Your task to perform on an android device: Go to location settings Image 0: 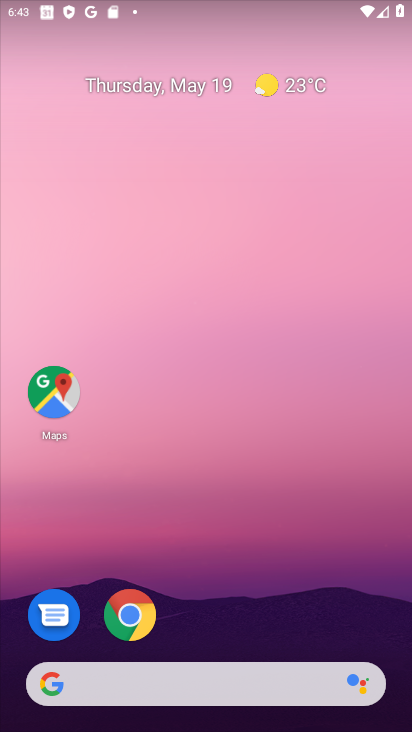
Step 0: drag from (325, 599) to (279, 4)
Your task to perform on an android device: Go to location settings Image 1: 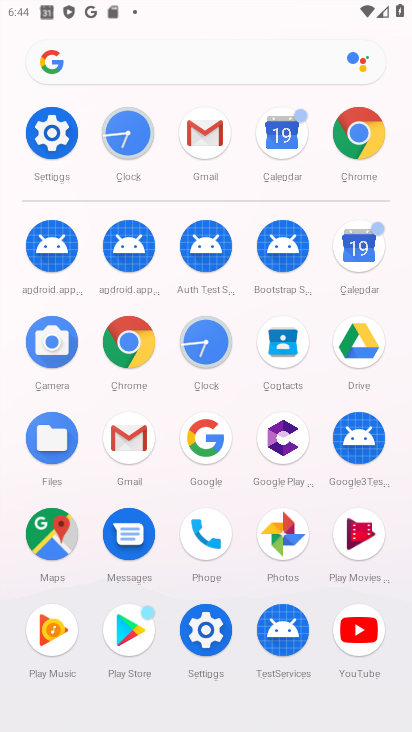
Step 1: click (222, 630)
Your task to perform on an android device: Go to location settings Image 2: 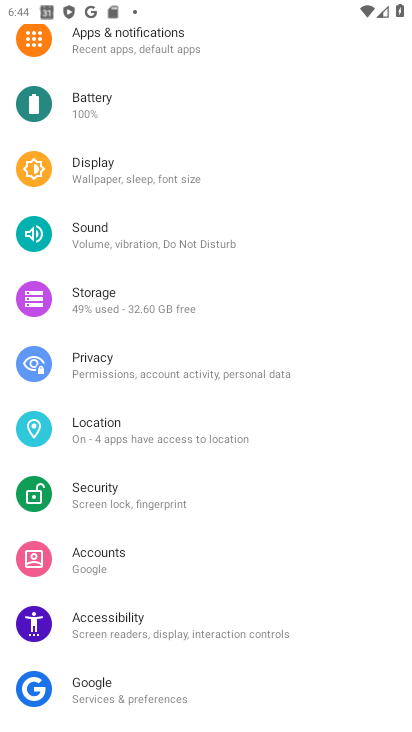
Step 2: click (172, 423)
Your task to perform on an android device: Go to location settings Image 3: 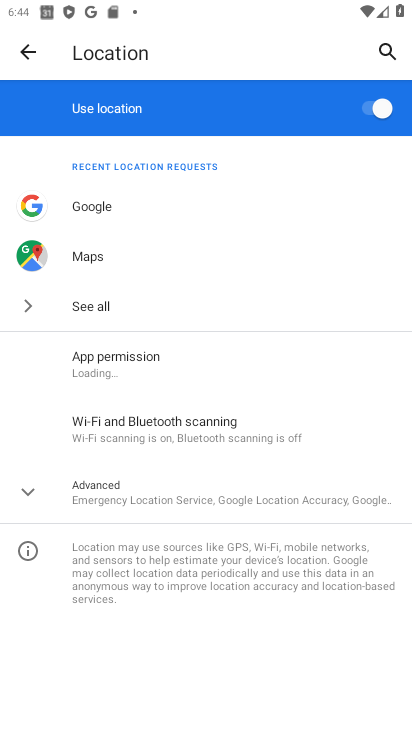
Step 3: task complete